Your task to perform on an android device: Open calendar and show me the fourth week of next month Image 0: 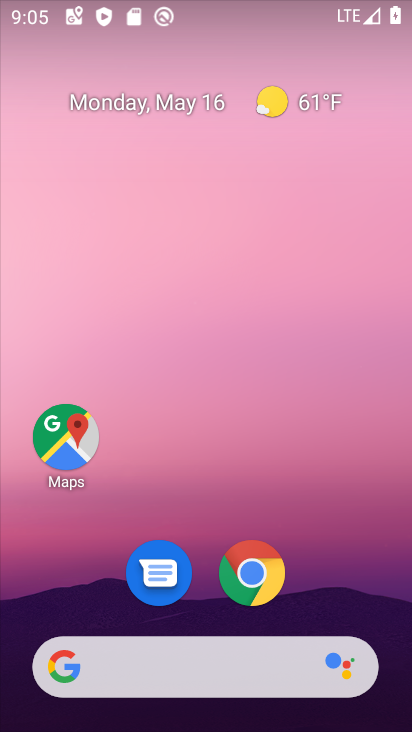
Step 0: drag from (218, 725) to (194, 142)
Your task to perform on an android device: Open calendar and show me the fourth week of next month Image 1: 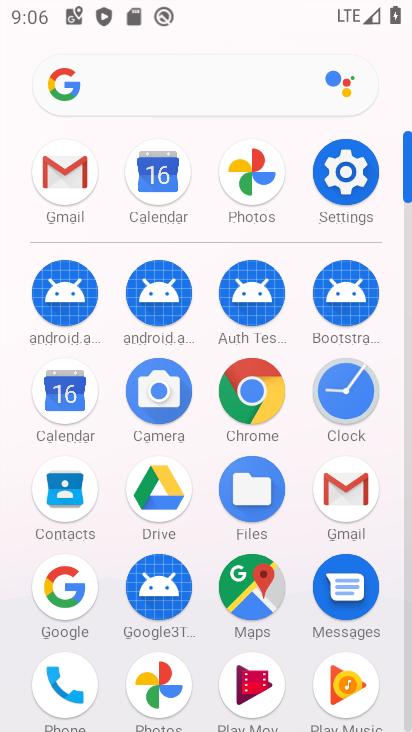
Step 1: click (57, 393)
Your task to perform on an android device: Open calendar and show me the fourth week of next month Image 2: 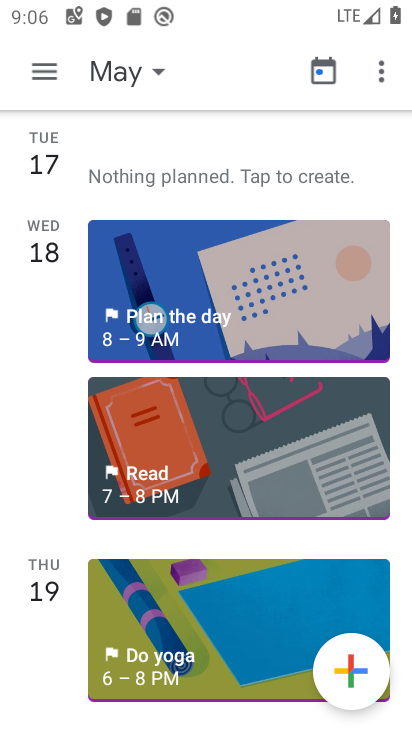
Step 2: click (101, 74)
Your task to perform on an android device: Open calendar and show me the fourth week of next month Image 3: 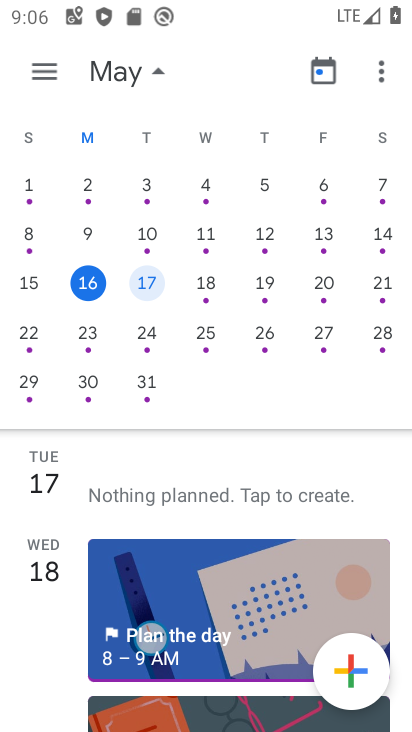
Step 3: drag from (339, 299) to (5, 263)
Your task to perform on an android device: Open calendar and show me the fourth week of next month Image 4: 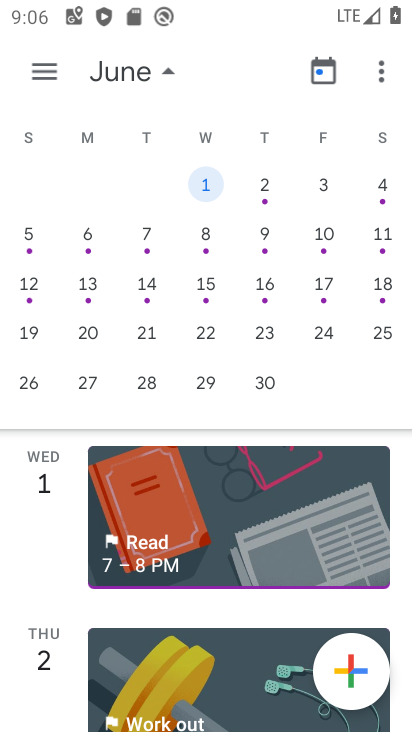
Step 4: click (85, 377)
Your task to perform on an android device: Open calendar and show me the fourth week of next month Image 5: 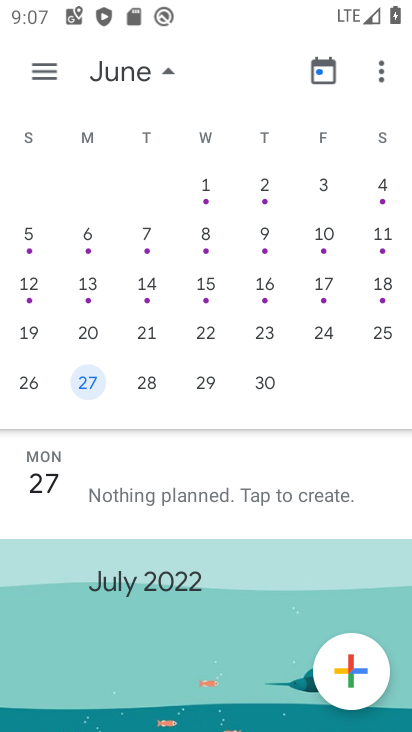
Step 5: click (44, 71)
Your task to perform on an android device: Open calendar and show me the fourth week of next month Image 6: 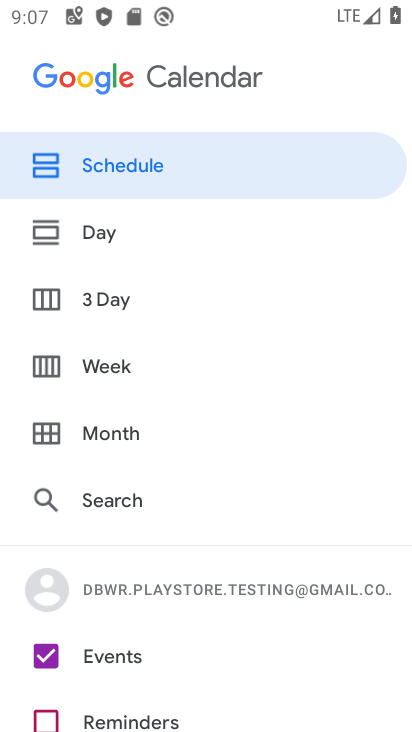
Step 6: click (103, 366)
Your task to perform on an android device: Open calendar and show me the fourth week of next month Image 7: 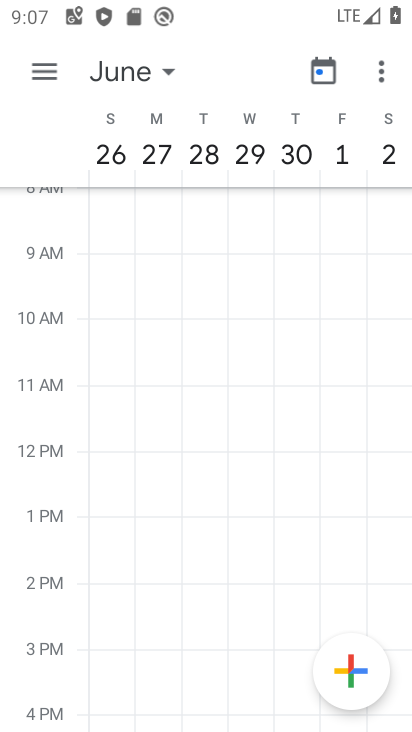
Step 7: task complete